Your task to perform on an android device: snooze an email in the gmail app Image 0: 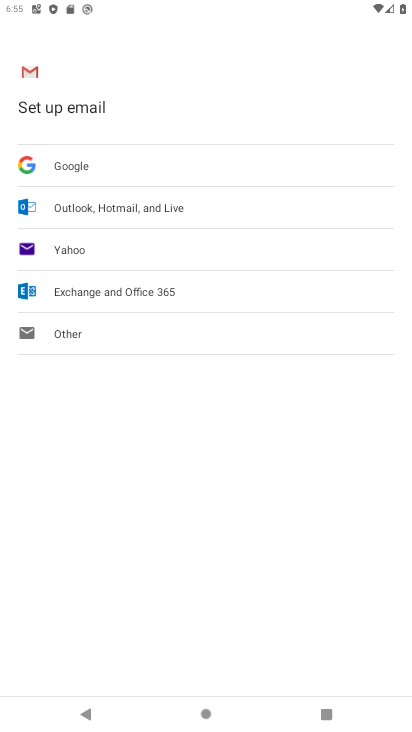
Step 0: press home button
Your task to perform on an android device: snooze an email in the gmail app Image 1: 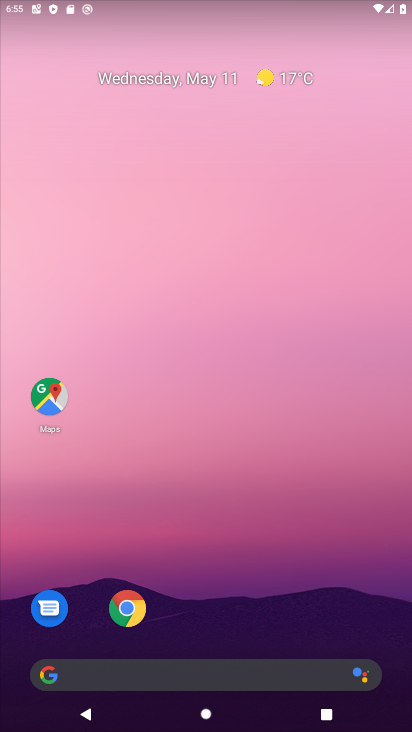
Step 1: drag from (223, 631) to (265, 20)
Your task to perform on an android device: snooze an email in the gmail app Image 2: 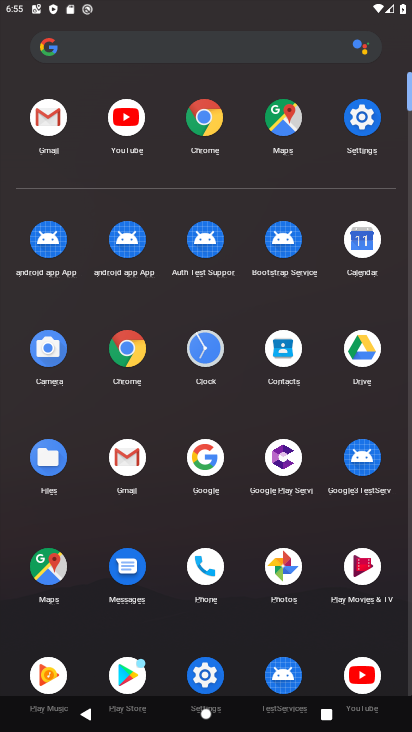
Step 2: click (57, 137)
Your task to perform on an android device: snooze an email in the gmail app Image 3: 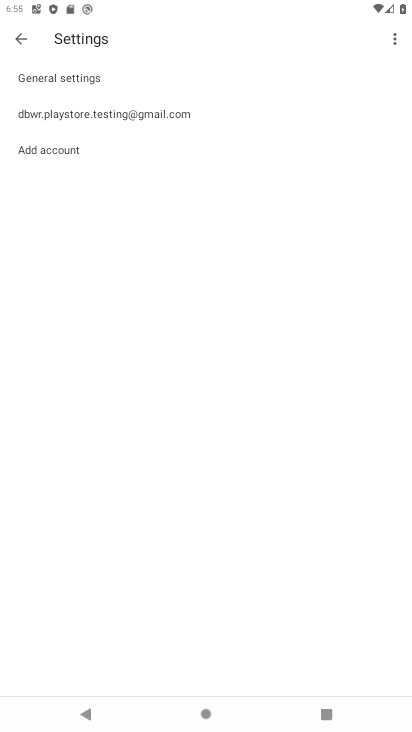
Step 3: click (23, 35)
Your task to perform on an android device: snooze an email in the gmail app Image 4: 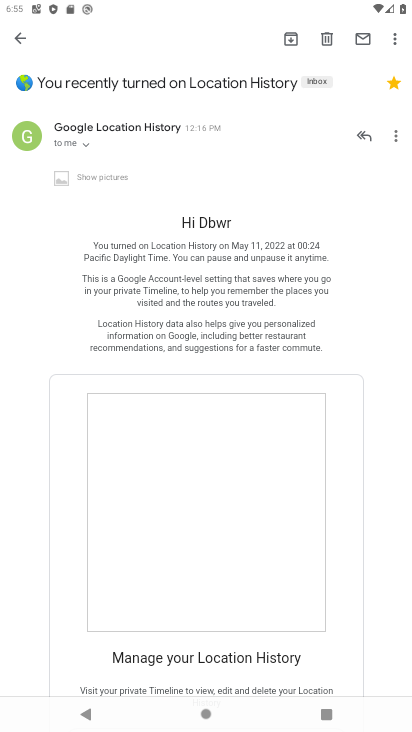
Step 4: click (16, 34)
Your task to perform on an android device: snooze an email in the gmail app Image 5: 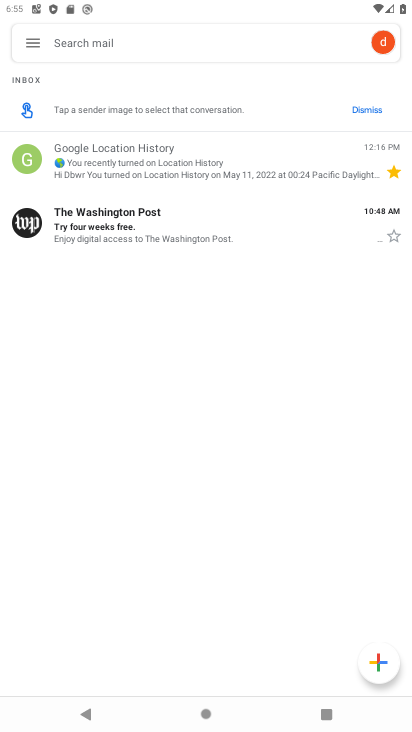
Step 5: click (161, 248)
Your task to perform on an android device: snooze an email in the gmail app Image 6: 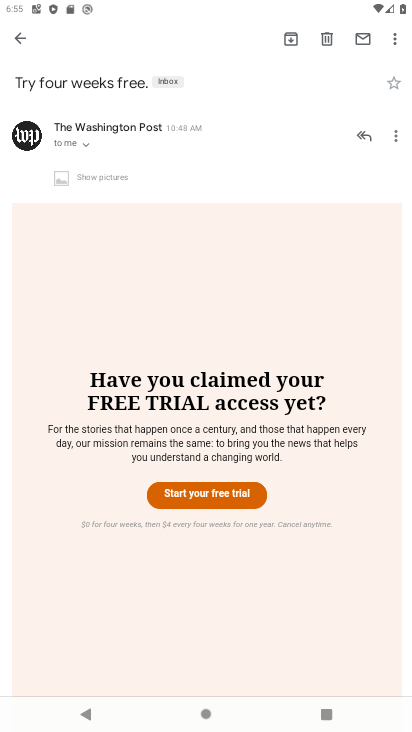
Step 6: click (390, 135)
Your task to perform on an android device: snooze an email in the gmail app Image 7: 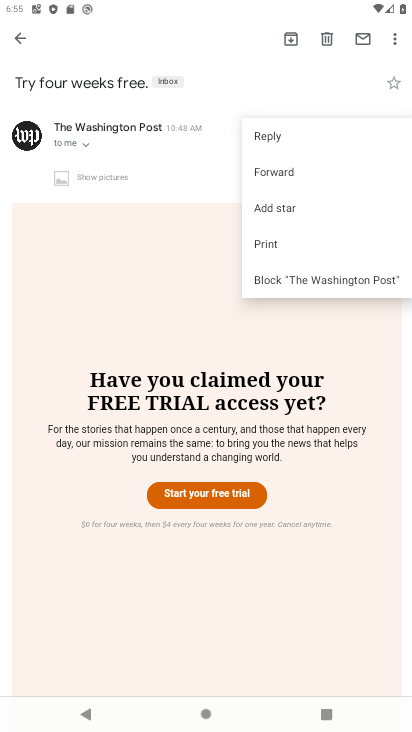
Step 7: click (164, 231)
Your task to perform on an android device: snooze an email in the gmail app Image 8: 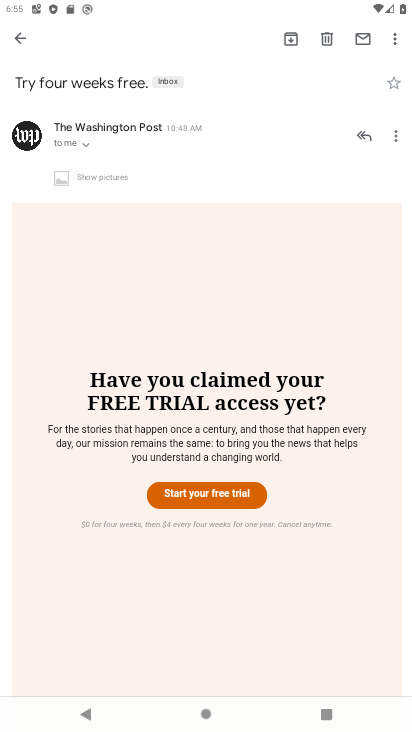
Step 8: click (387, 43)
Your task to perform on an android device: snooze an email in the gmail app Image 9: 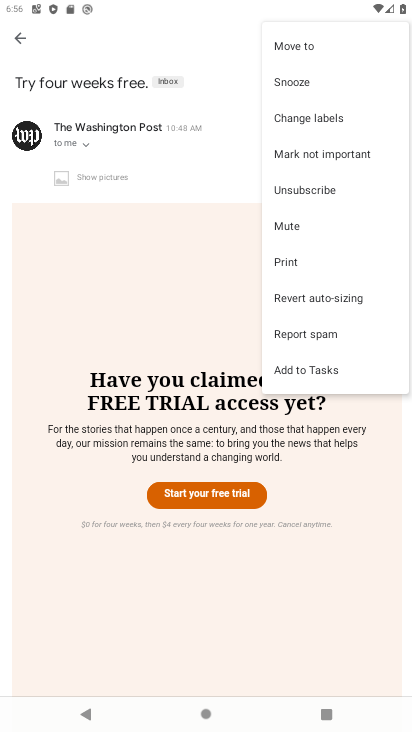
Step 9: click (304, 90)
Your task to perform on an android device: snooze an email in the gmail app Image 10: 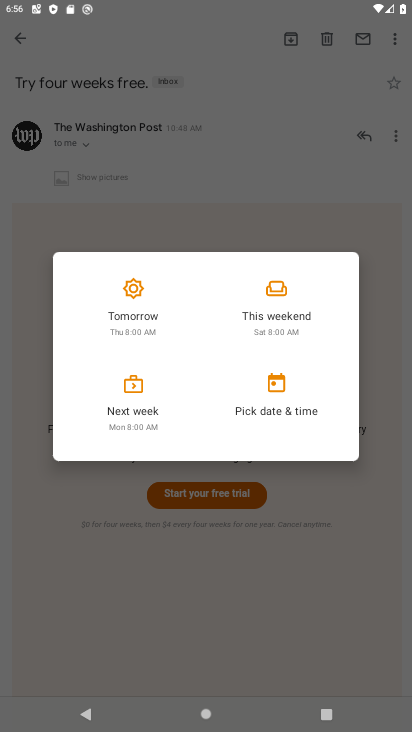
Step 10: click (145, 321)
Your task to perform on an android device: snooze an email in the gmail app Image 11: 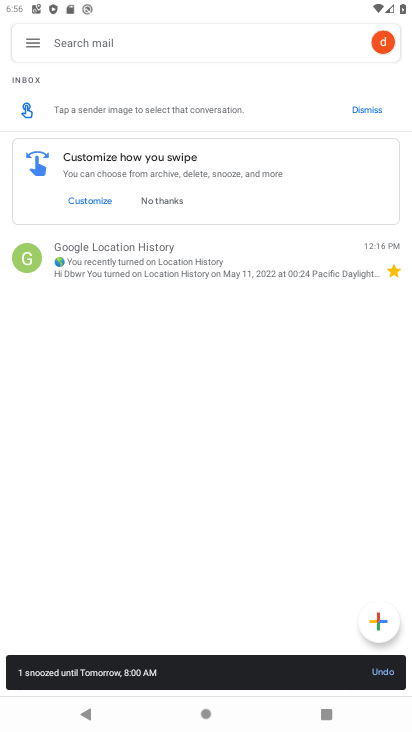
Step 11: task complete